Your task to perform on an android device: What is the news today? Image 0: 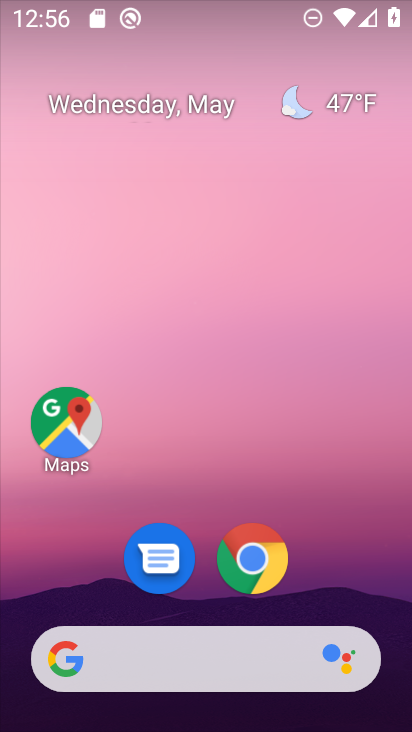
Step 0: click (170, 649)
Your task to perform on an android device: What is the news today? Image 1: 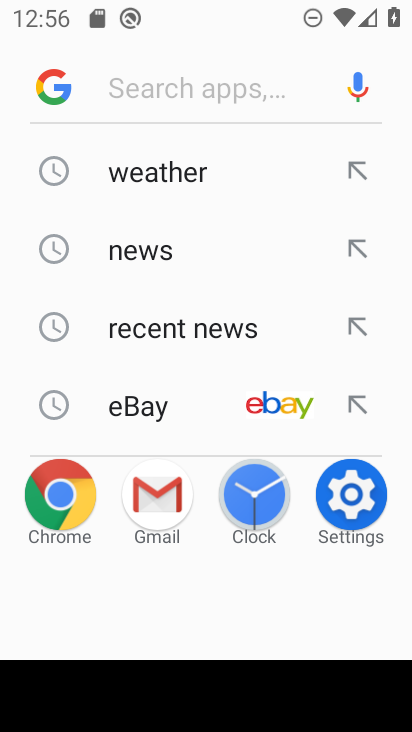
Step 1: type "news today"
Your task to perform on an android device: What is the news today? Image 2: 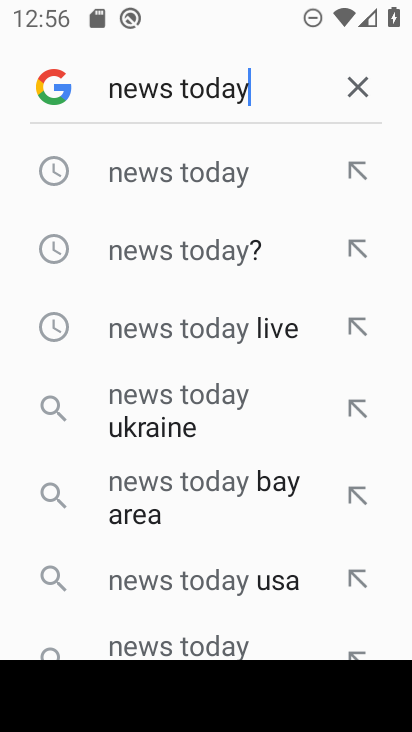
Step 2: click (199, 243)
Your task to perform on an android device: What is the news today? Image 3: 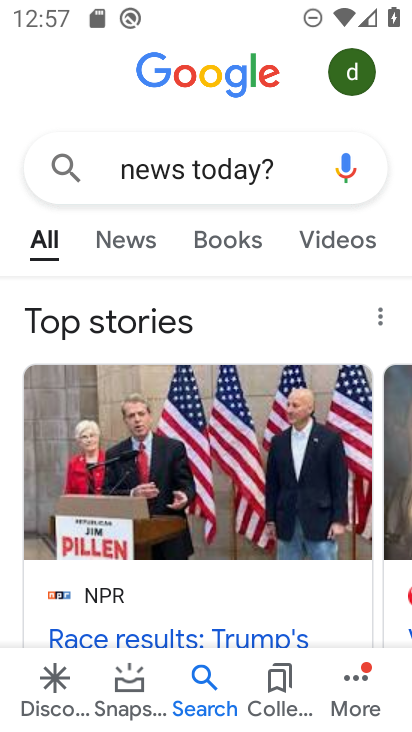
Step 3: task complete